Your task to perform on an android device: Turn off the flashlight Image 0: 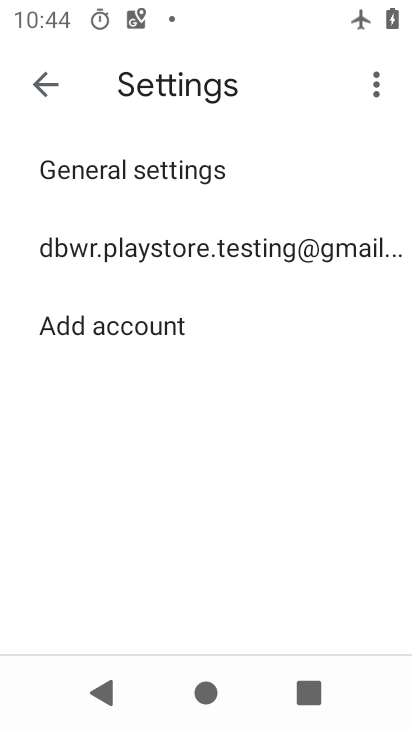
Step 0: press home button
Your task to perform on an android device: Turn off the flashlight Image 1: 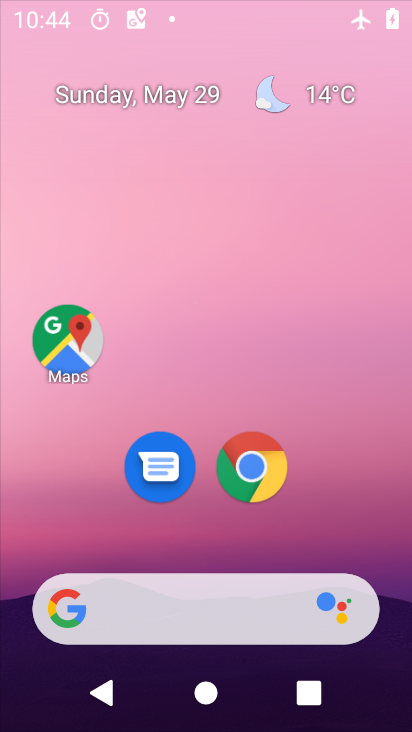
Step 1: drag from (177, 514) to (165, 194)
Your task to perform on an android device: Turn off the flashlight Image 2: 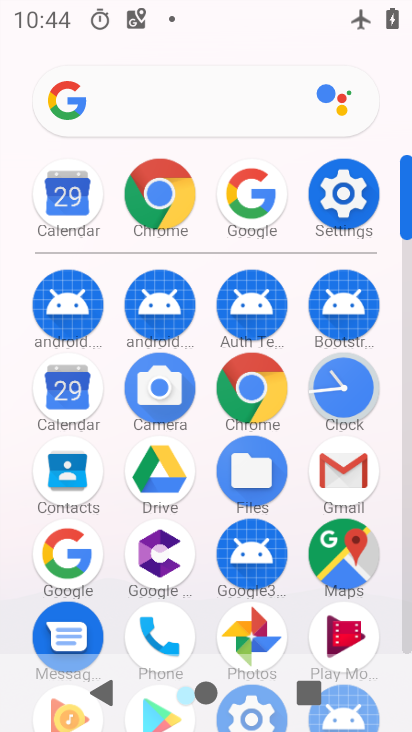
Step 2: click (345, 203)
Your task to perform on an android device: Turn off the flashlight Image 3: 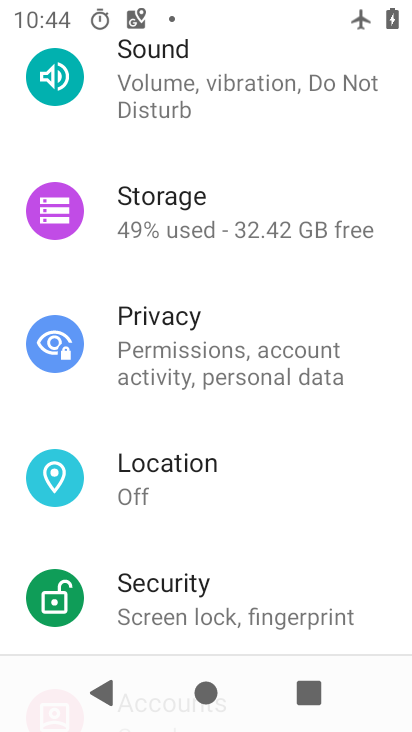
Step 3: task complete